Your task to perform on an android device: Search for "apple airpods pro" on bestbuy.com, select the first entry, and add it to the cart. Image 0: 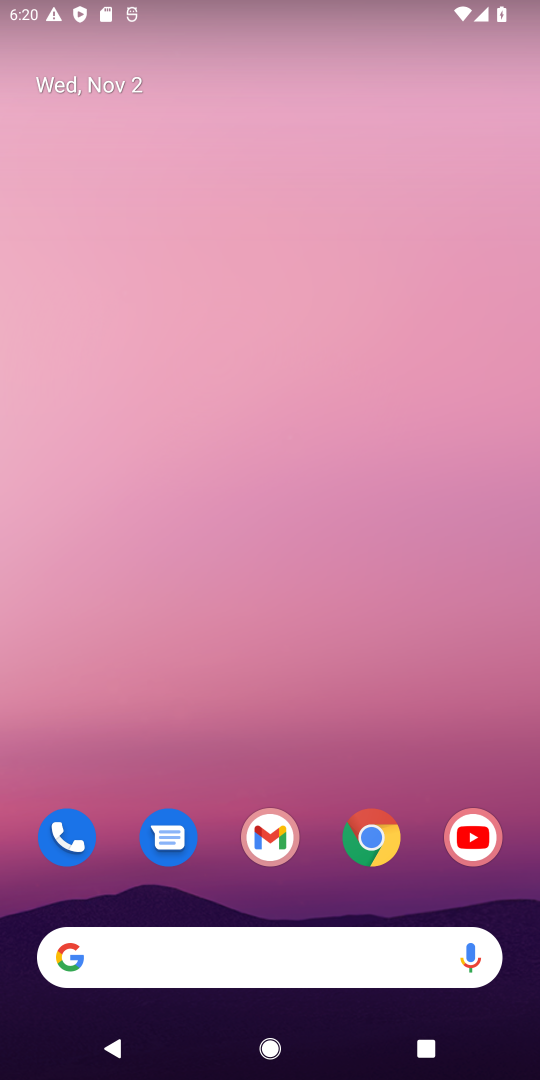
Step 0: click (366, 839)
Your task to perform on an android device: Search for "apple airpods pro" on bestbuy.com, select the first entry, and add it to the cart. Image 1: 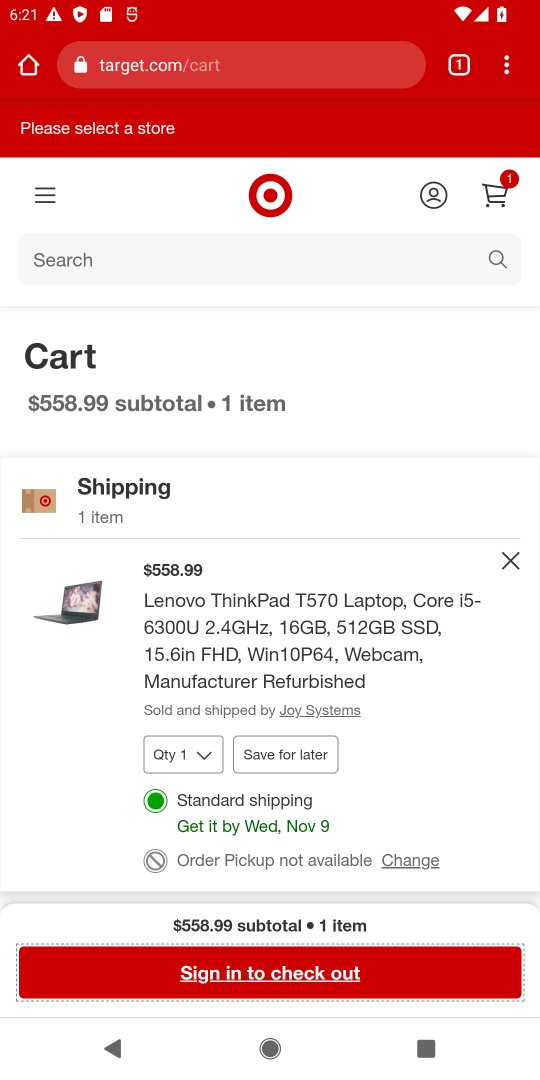
Step 1: click (159, 70)
Your task to perform on an android device: Search for "apple airpods pro" on bestbuy.com, select the first entry, and add it to the cart. Image 2: 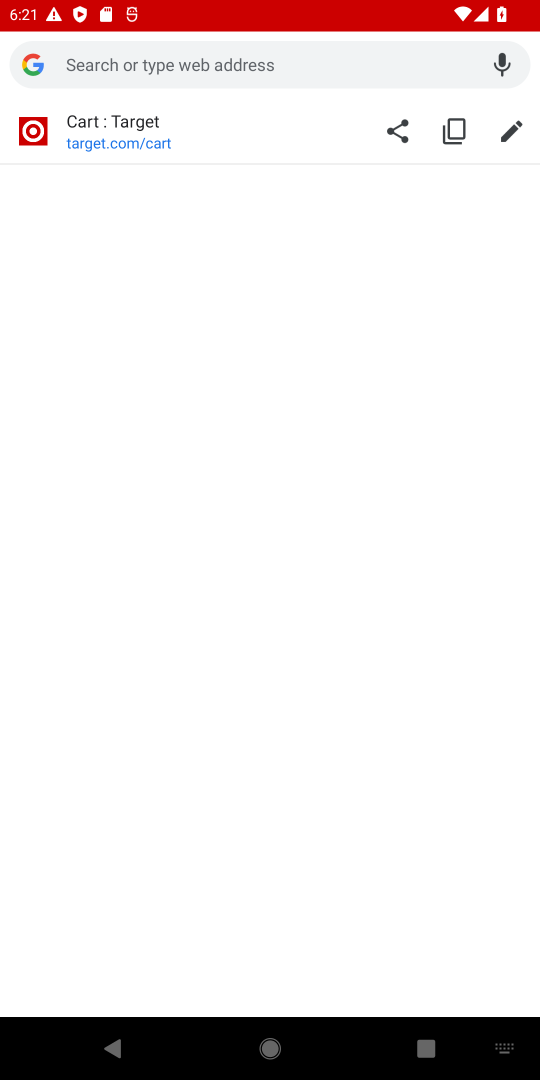
Step 2: type "bestbuy"
Your task to perform on an android device: Search for "apple airpods pro" on bestbuy.com, select the first entry, and add it to the cart. Image 3: 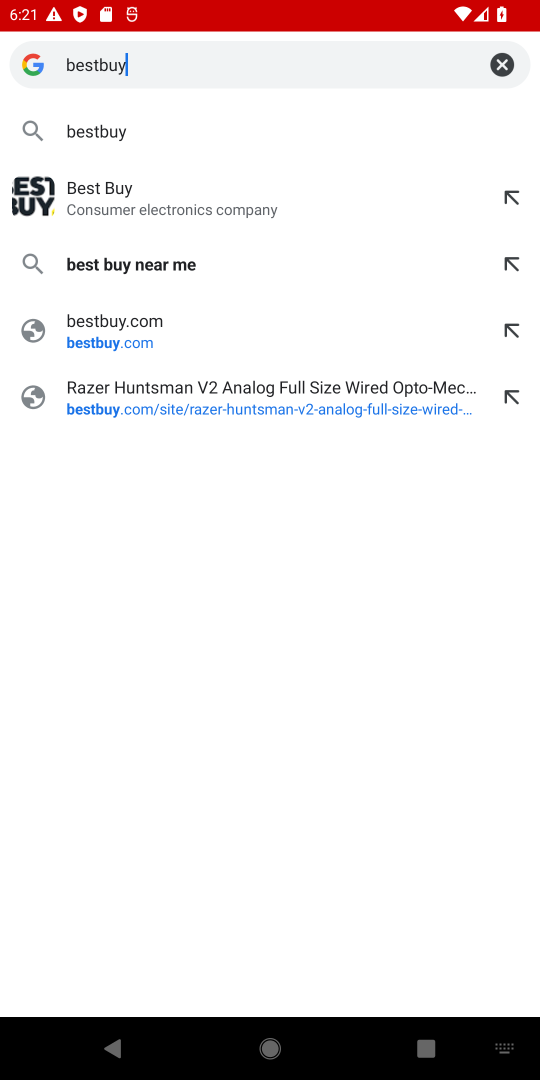
Step 3: click (108, 204)
Your task to perform on an android device: Search for "apple airpods pro" on bestbuy.com, select the first entry, and add it to the cart. Image 4: 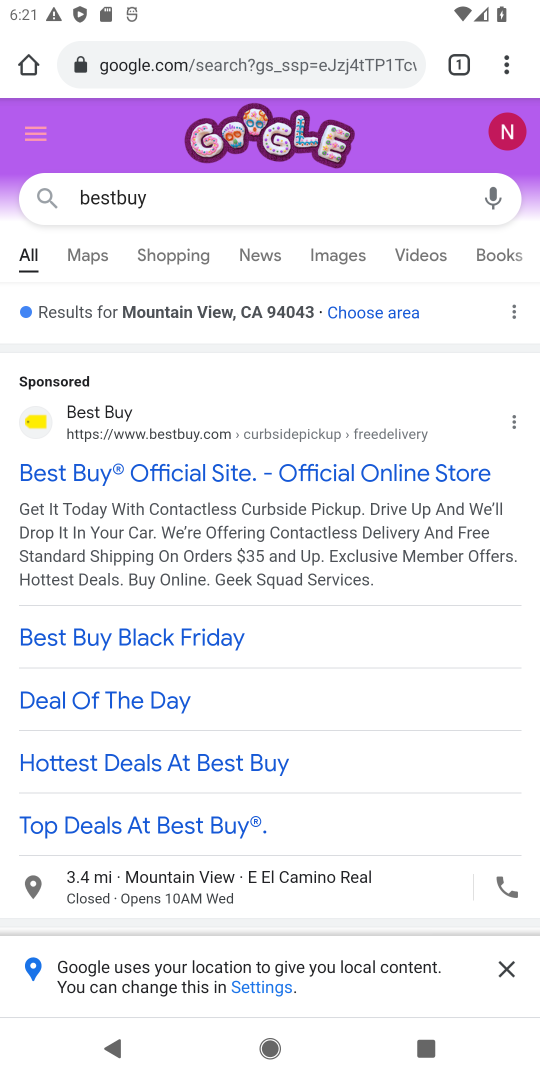
Step 4: drag from (151, 824) to (186, 561)
Your task to perform on an android device: Search for "apple airpods pro" on bestbuy.com, select the first entry, and add it to the cart. Image 5: 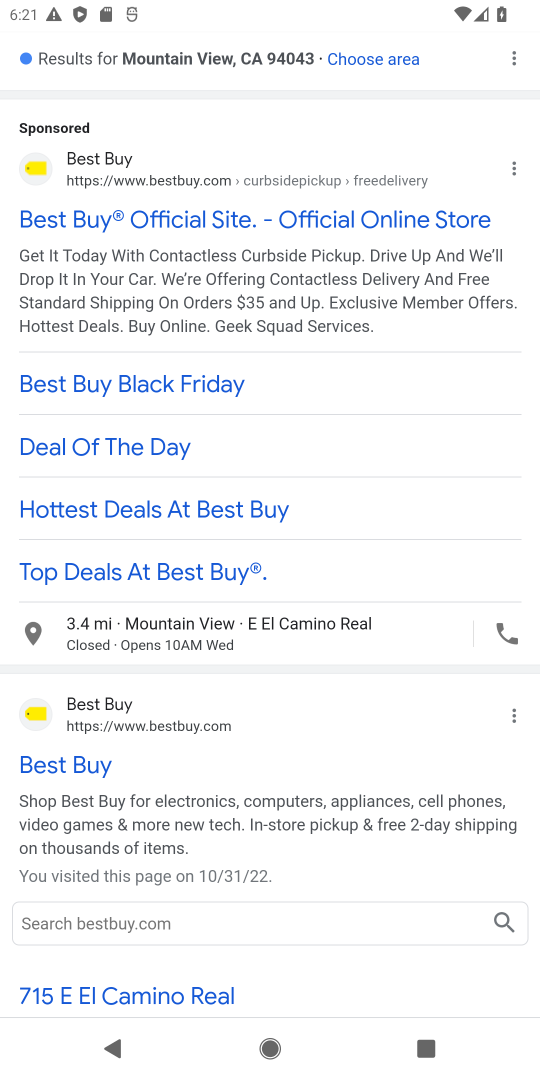
Step 5: click (81, 766)
Your task to perform on an android device: Search for "apple airpods pro" on bestbuy.com, select the first entry, and add it to the cart. Image 6: 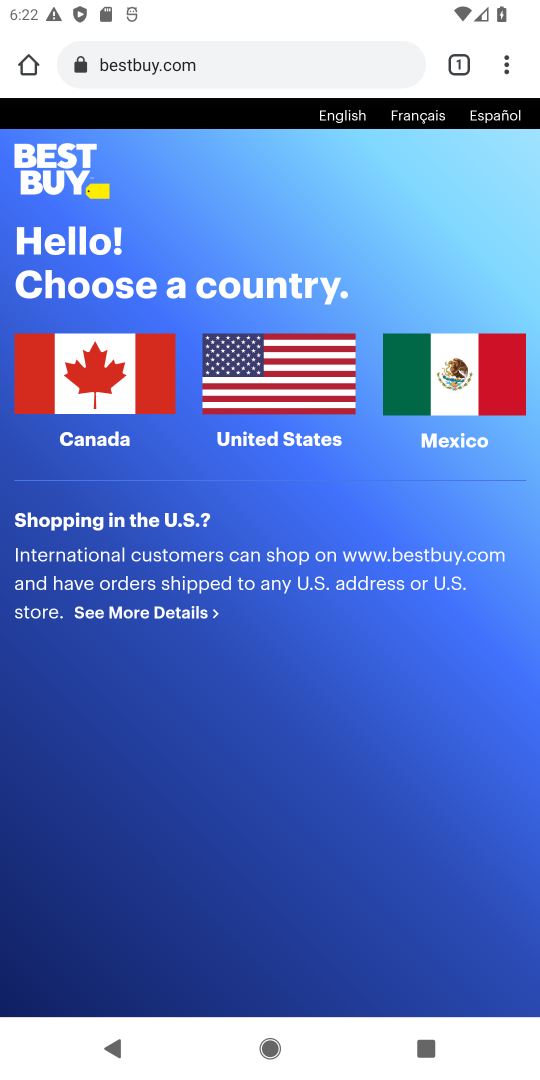
Step 6: click (246, 348)
Your task to perform on an android device: Search for "apple airpods pro" on bestbuy.com, select the first entry, and add it to the cart. Image 7: 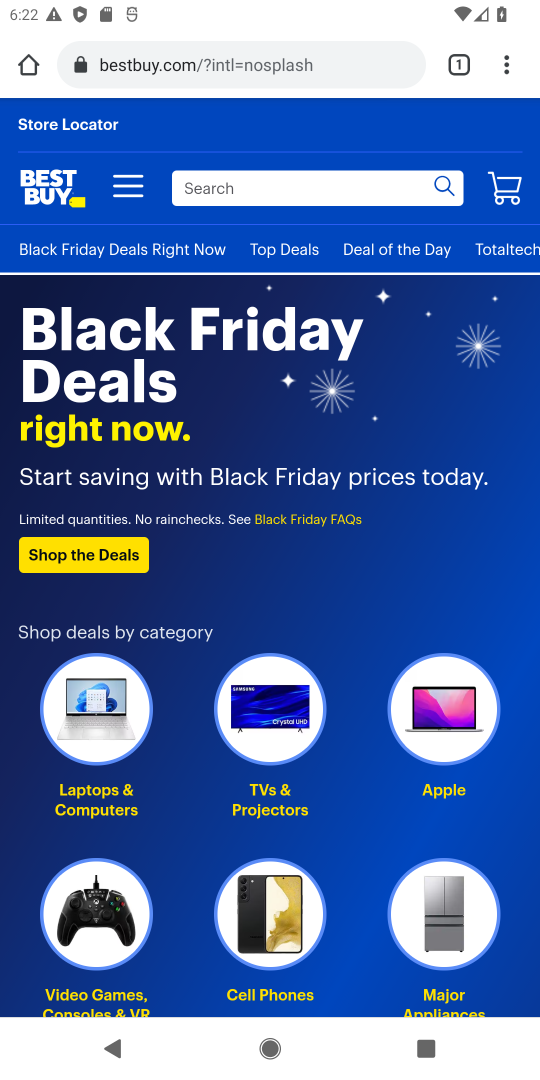
Step 7: click (201, 188)
Your task to perform on an android device: Search for "apple airpods pro" on bestbuy.com, select the first entry, and add it to the cart. Image 8: 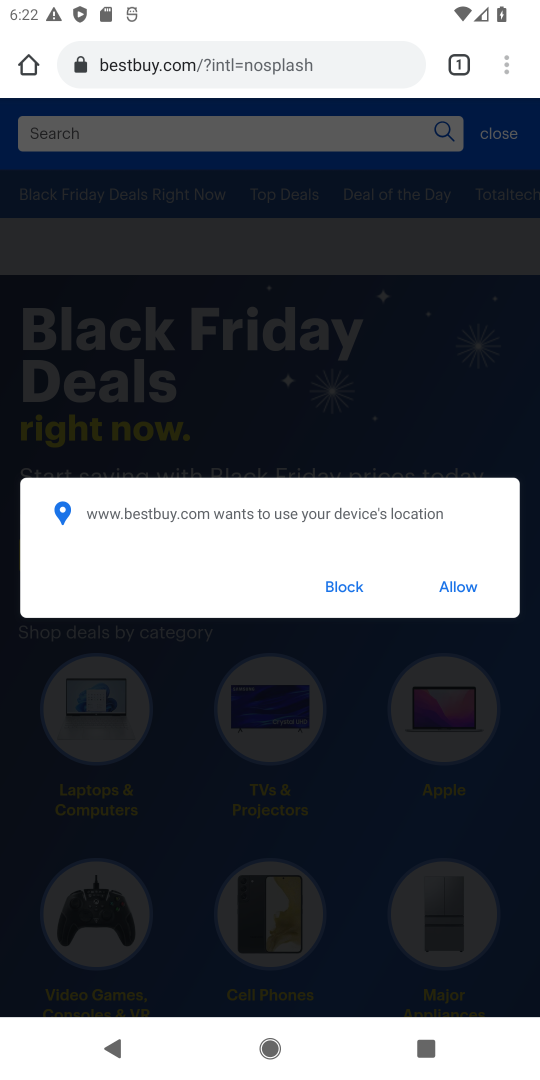
Step 8: type "apple airpods"
Your task to perform on an android device: Search for "apple airpods pro" on bestbuy.com, select the first entry, and add it to the cart. Image 9: 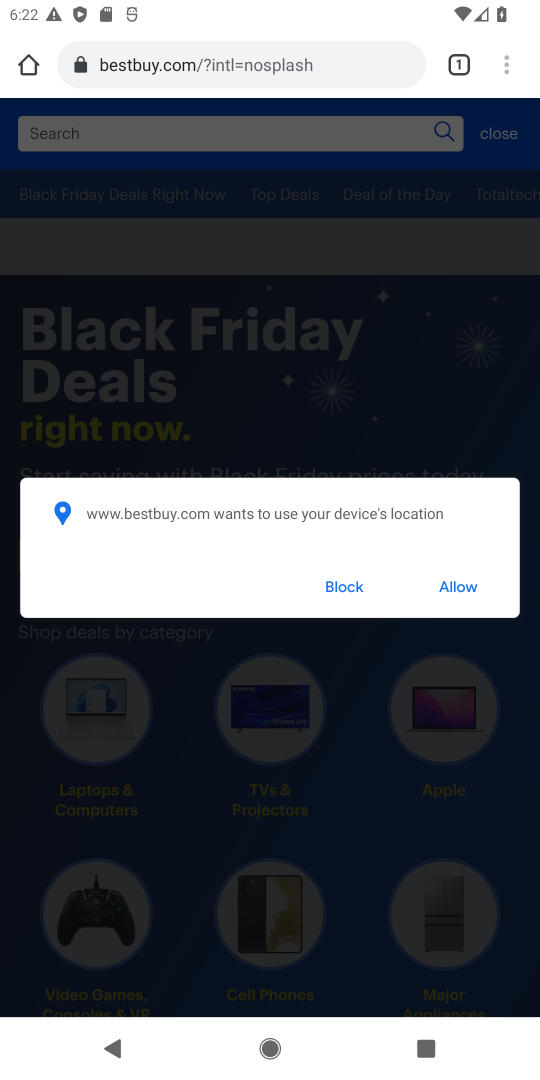
Step 9: click (457, 587)
Your task to perform on an android device: Search for "apple airpods pro" on bestbuy.com, select the first entry, and add it to the cart. Image 10: 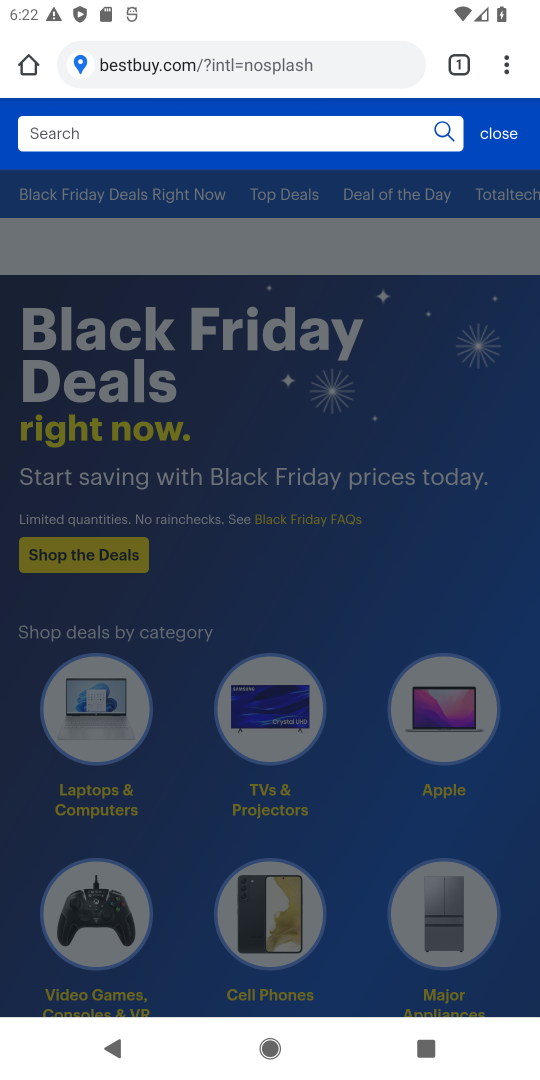
Step 10: click (77, 133)
Your task to perform on an android device: Search for "apple airpods pro" on bestbuy.com, select the first entry, and add it to the cart. Image 11: 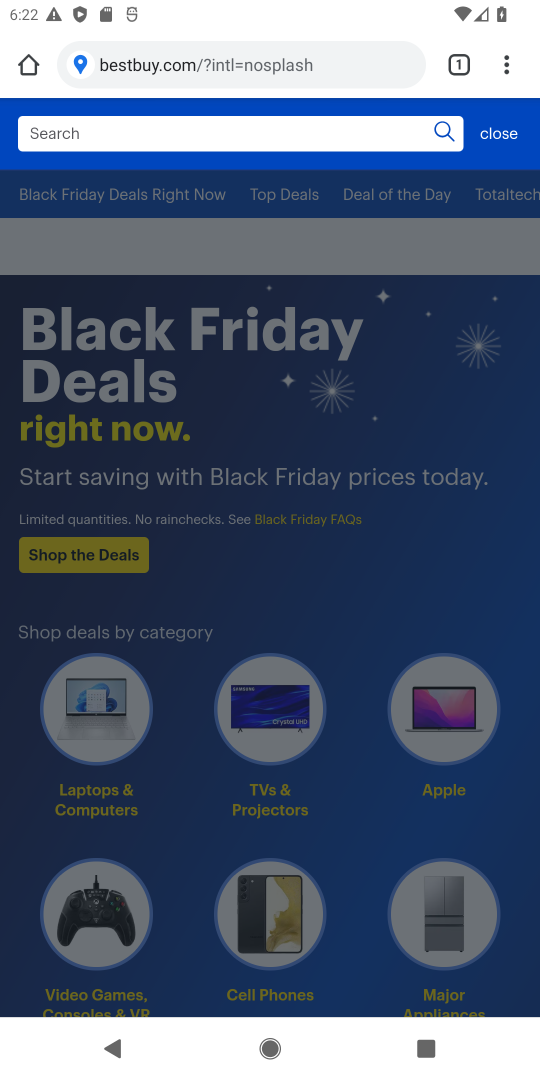
Step 11: click (83, 135)
Your task to perform on an android device: Search for "apple airpods pro" on bestbuy.com, select the first entry, and add it to the cart. Image 12: 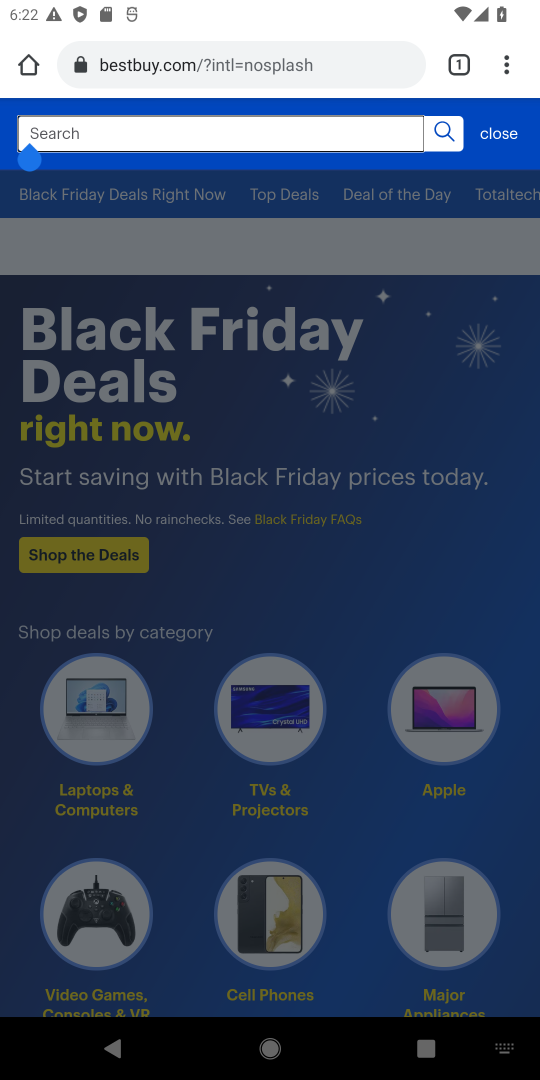
Step 12: type "apple airpods"
Your task to perform on an android device: Search for "apple airpods pro" on bestbuy.com, select the first entry, and add it to the cart. Image 13: 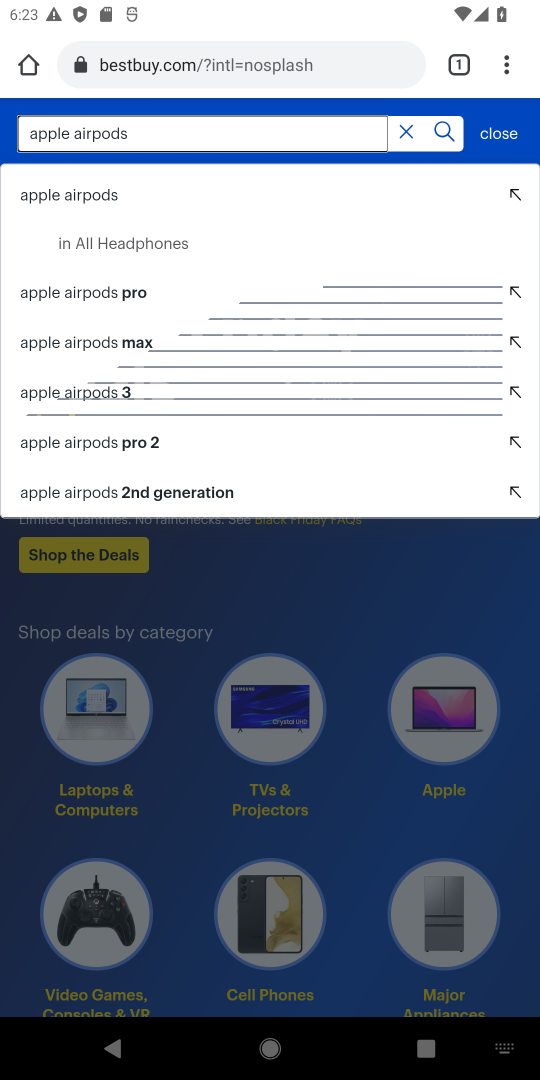
Step 13: click (449, 137)
Your task to perform on an android device: Search for "apple airpods pro" on bestbuy.com, select the first entry, and add it to the cart. Image 14: 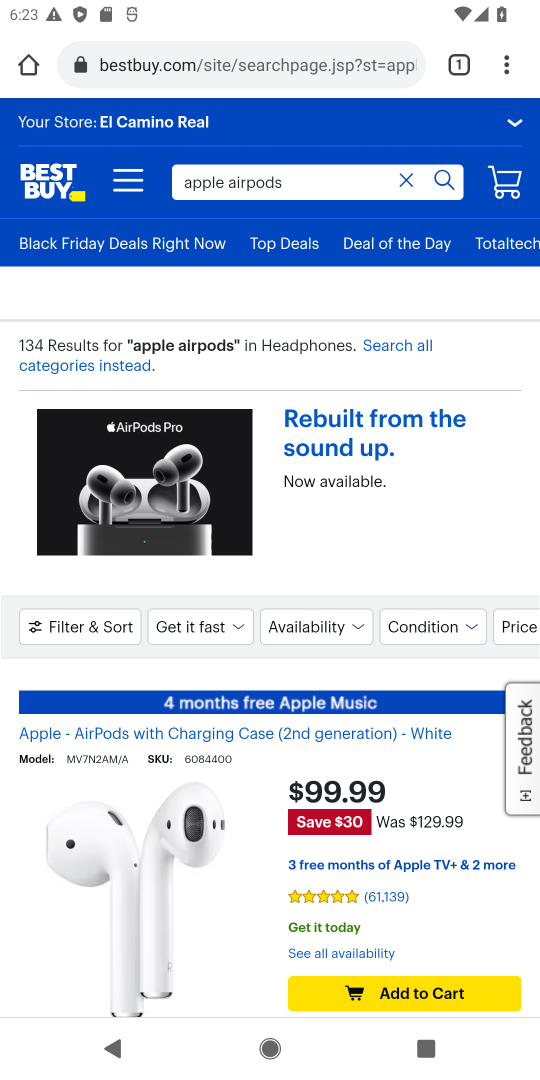
Step 14: click (143, 893)
Your task to perform on an android device: Search for "apple airpods pro" on bestbuy.com, select the first entry, and add it to the cart. Image 15: 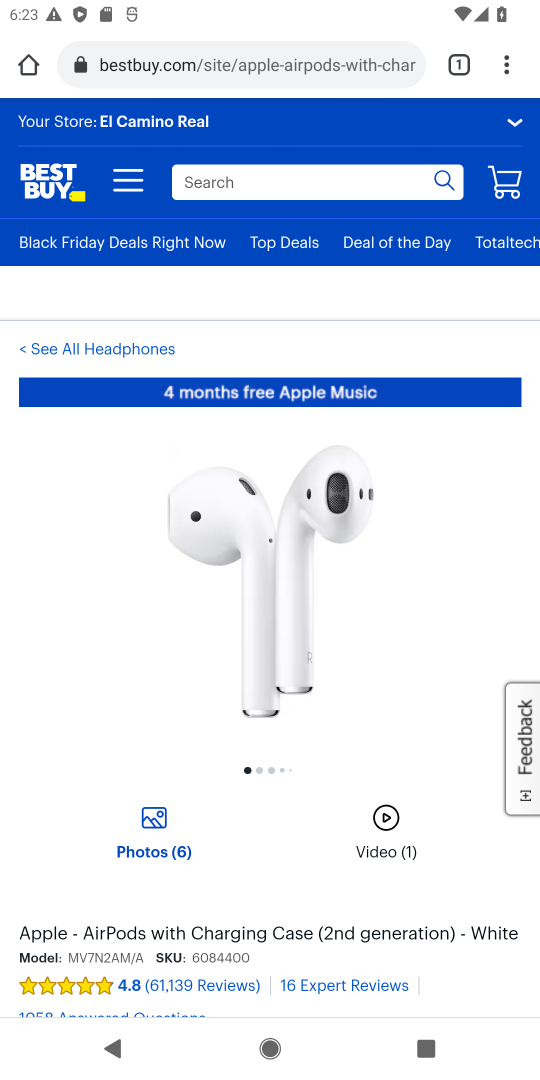
Step 15: drag from (300, 840) to (361, 2)
Your task to perform on an android device: Search for "apple airpods pro" on bestbuy.com, select the first entry, and add it to the cart. Image 16: 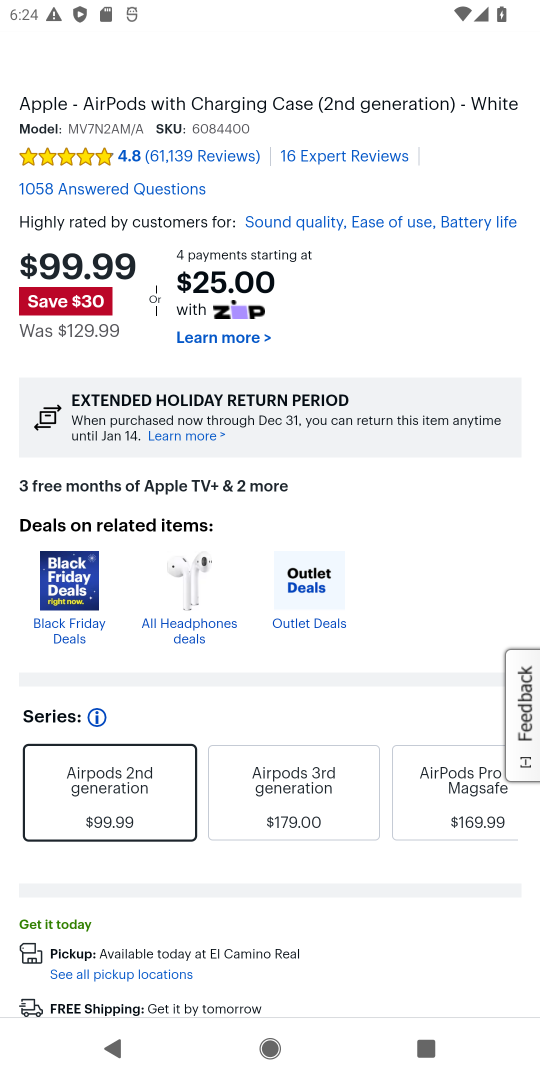
Step 16: drag from (123, 770) to (266, 264)
Your task to perform on an android device: Search for "apple airpods pro" on bestbuy.com, select the first entry, and add it to the cart. Image 17: 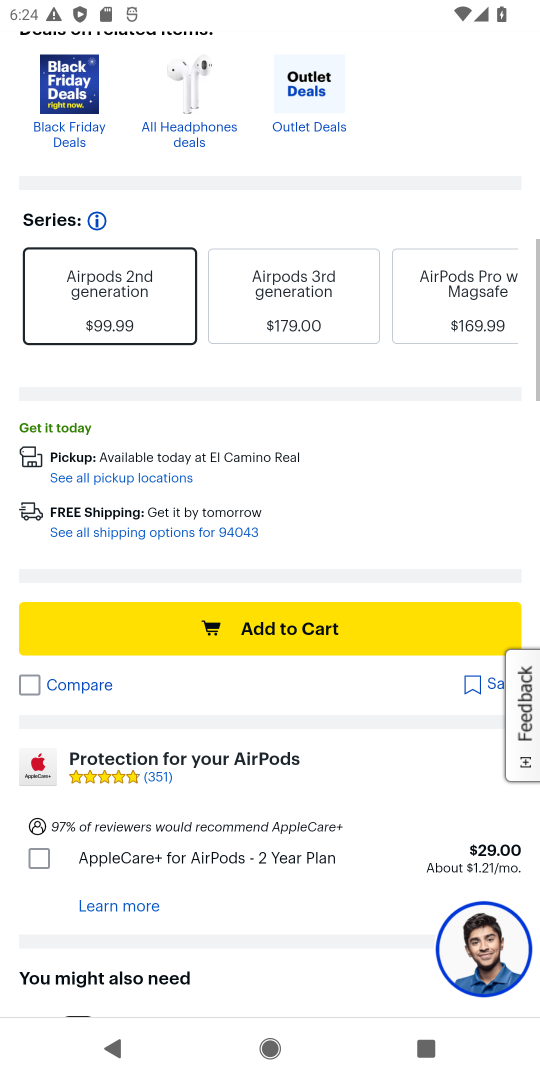
Step 17: drag from (119, 921) to (223, 430)
Your task to perform on an android device: Search for "apple airpods pro" on bestbuy.com, select the first entry, and add it to the cart. Image 18: 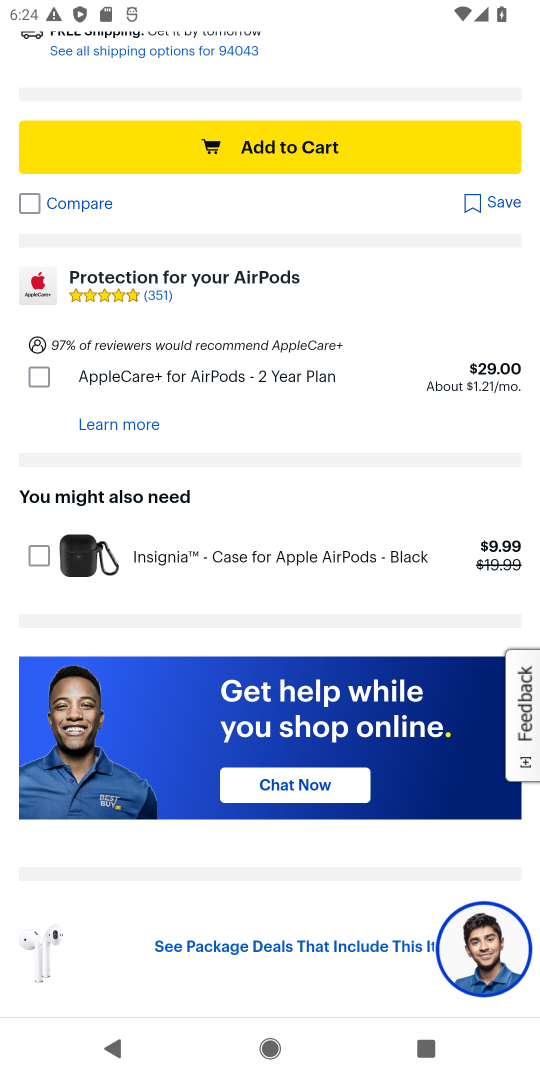
Step 18: click (274, 159)
Your task to perform on an android device: Search for "apple airpods pro" on bestbuy.com, select the first entry, and add it to the cart. Image 19: 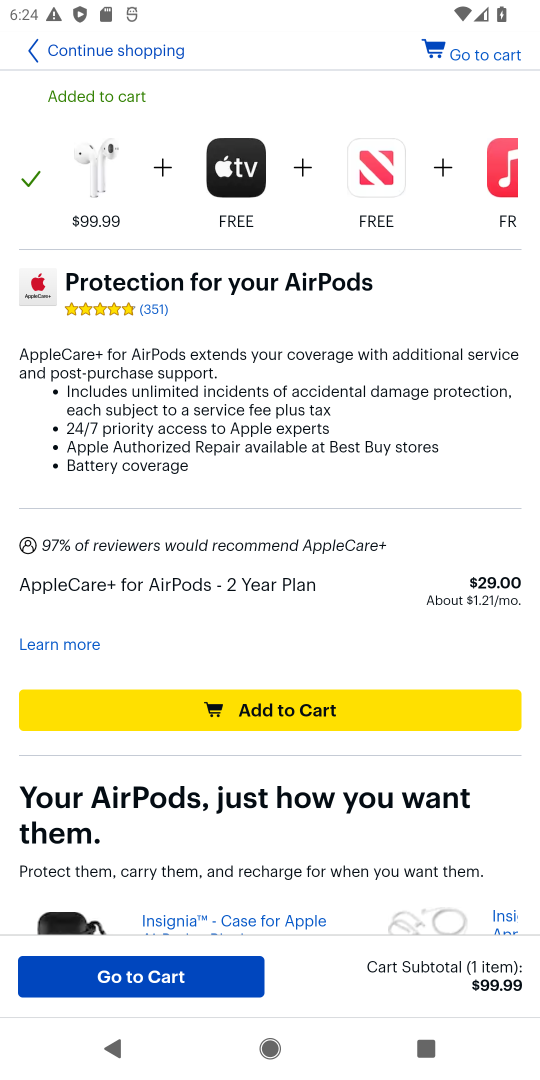
Step 19: click (305, 713)
Your task to perform on an android device: Search for "apple airpods pro" on bestbuy.com, select the first entry, and add it to the cart. Image 20: 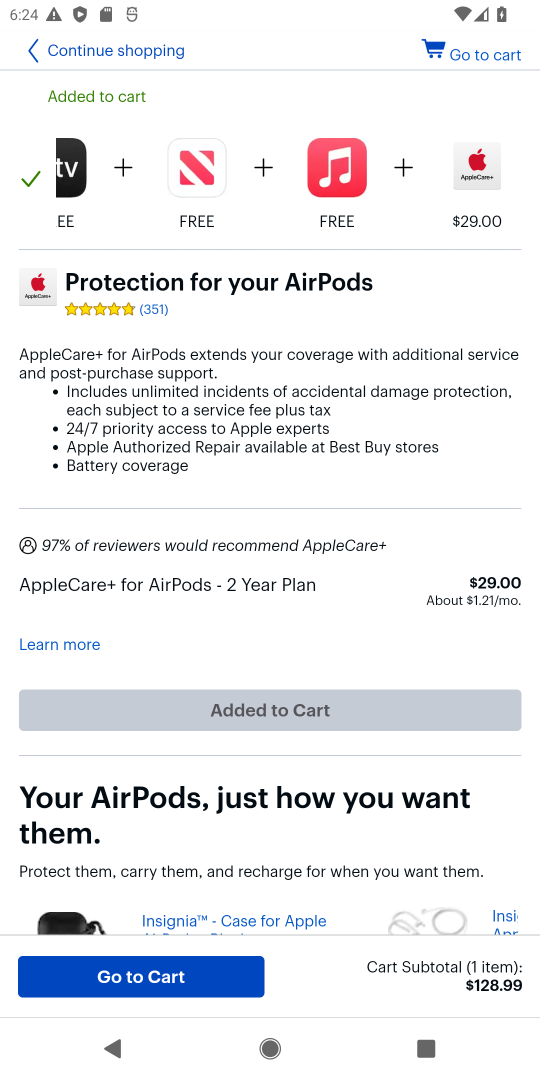
Step 20: click (109, 986)
Your task to perform on an android device: Search for "apple airpods pro" on bestbuy.com, select the first entry, and add it to the cart. Image 21: 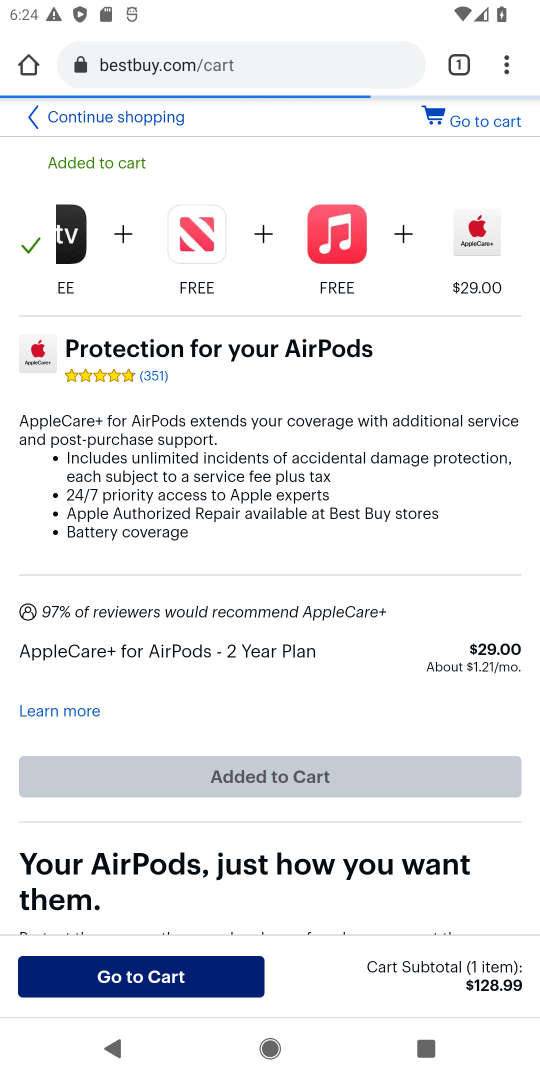
Step 21: task complete